Your task to perform on an android device: Open CNN.com Image 0: 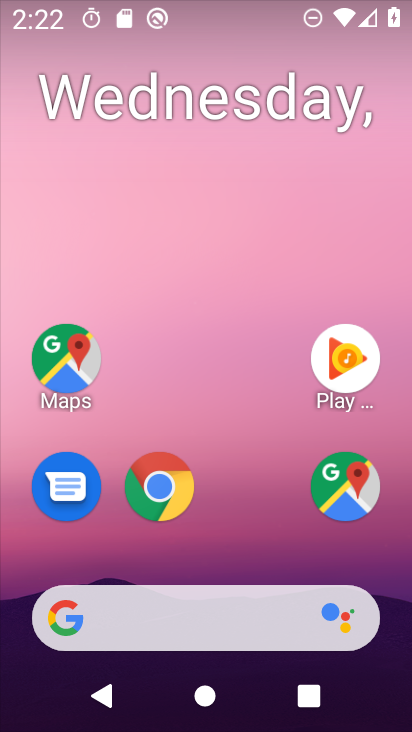
Step 0: drag from (240, 564) to (224, 151)
Your task to perform on an android device: Open CNN.com Image 1: 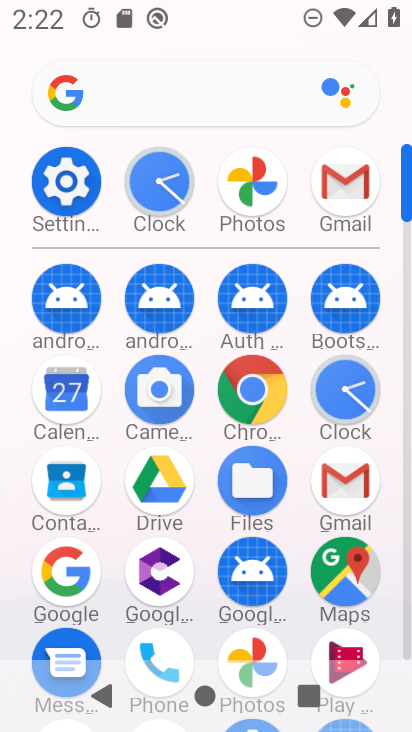
Step 1: click (249, 388)
Your task to perform on an android device: Open CNN.com Image 2: 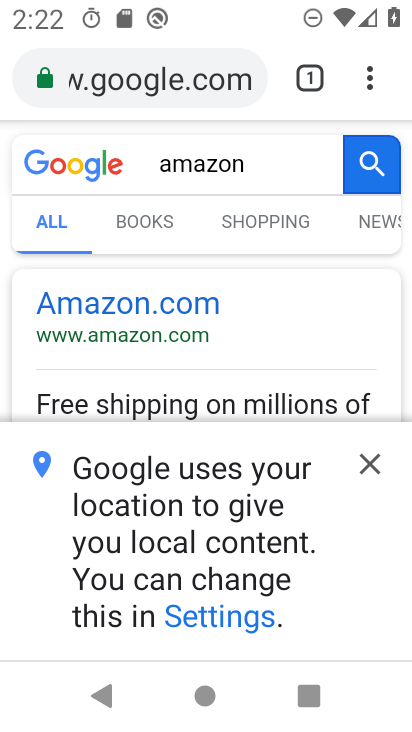
Step 2: click (208, 75)
Your task to perform on an android device: Open CNN.com Image 3: 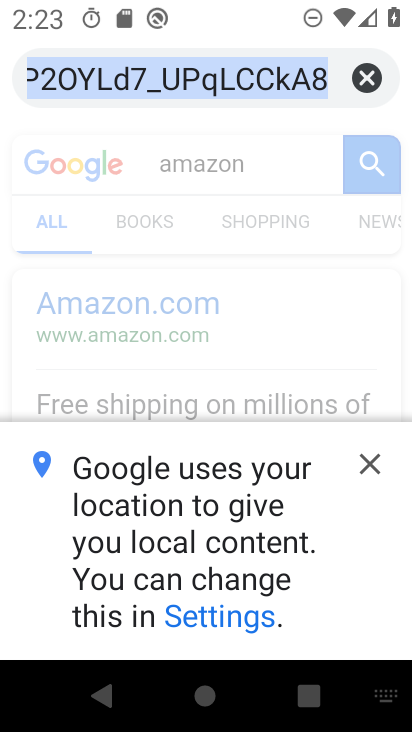
Step 3: type "cnn.com"
Your task to perform on an android device: Open CNN.com Image 4: 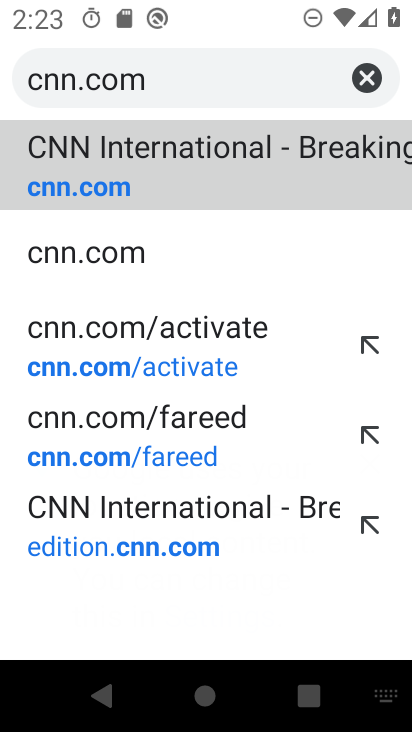
Step 4: click (350, 168)
Your task to perform on an android device: Open CNN.com Image 5: 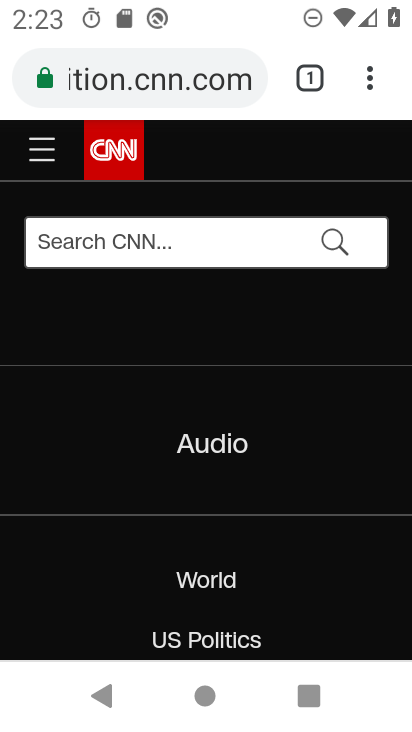
Step 5: task complete